Your task to perform on an android device: turn off picture-in-picture Image 0: 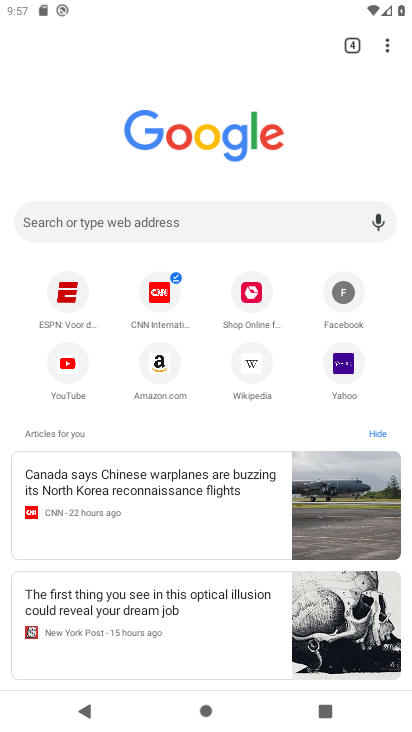
Step 0: press back button
Your task to perform on an android device: turn off picture-in-picture Image 1: 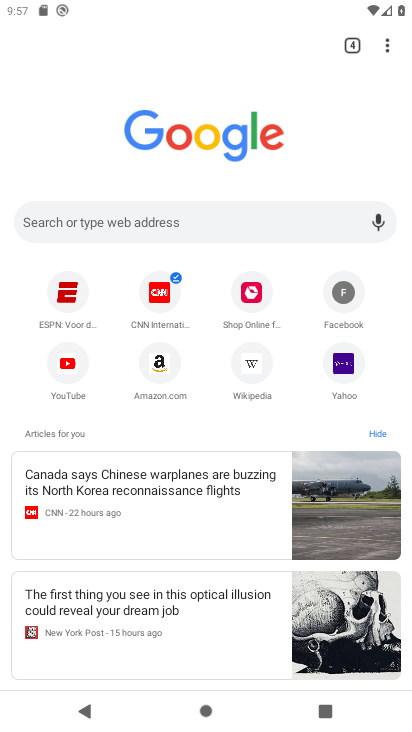
Step 1: press back button
Your task to perform on an android device: turn off picture-in-picture Image 2: 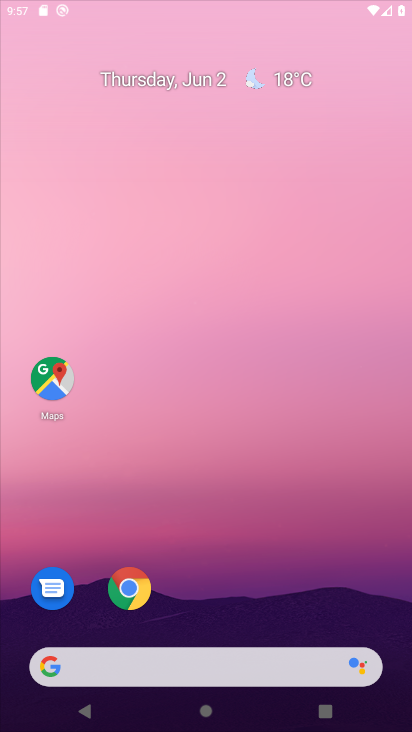
Step 2: press back button
Your task to perform on an android device: turn off picture-in-picture Image 3: 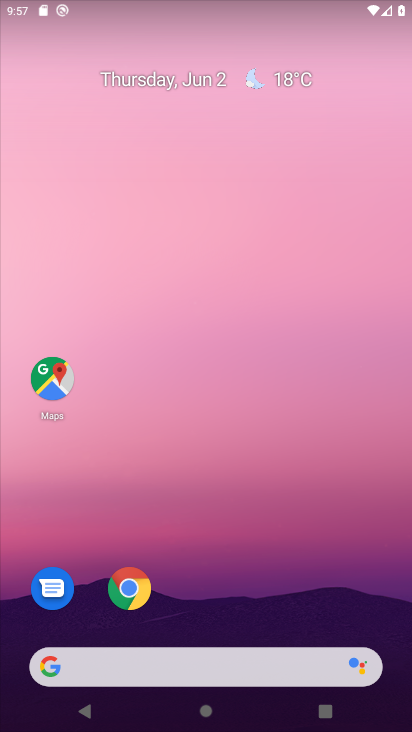
Step 3: drag from (277, 691) to (270, 17)
Your task to perform on an android device: turn off picture-in-picture Image 4: 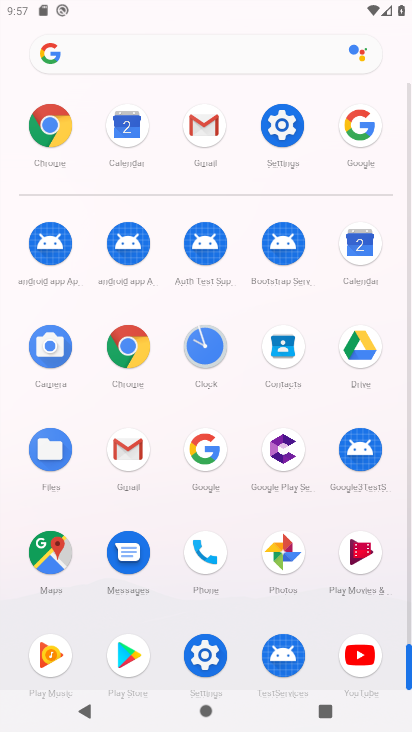
Step 4: click (48, 118)
Your task to perform on an android device: turn off picture-in-picture Image 5: 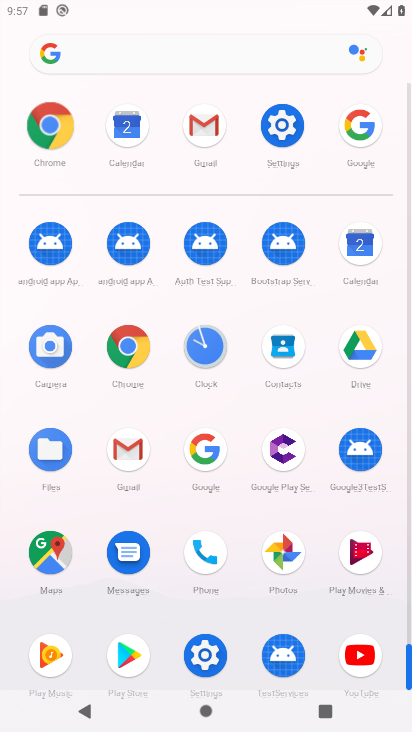
Step 5: click (46, 119)
Your task to perform on an android device: turn off picture-in-picture Image 6: 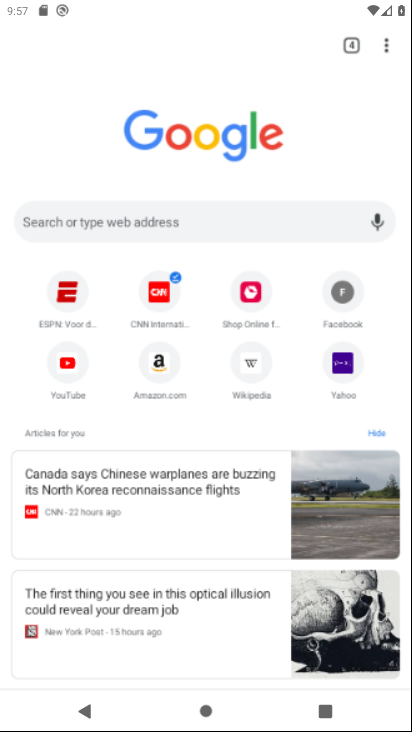
Step 6: click (51, 121)
Your task to perform on an android device: turn off picture-in-picture Image 7: 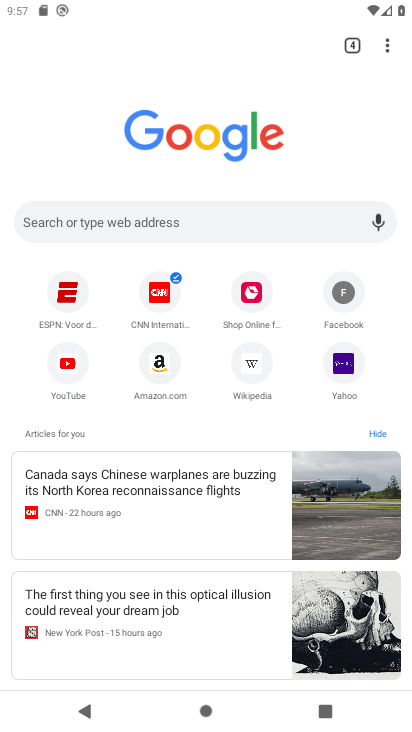
Step 7: drag from (389, 57) to (214, 375)
Your task to perform on an android device: turn off picture-in-picture Image 8: 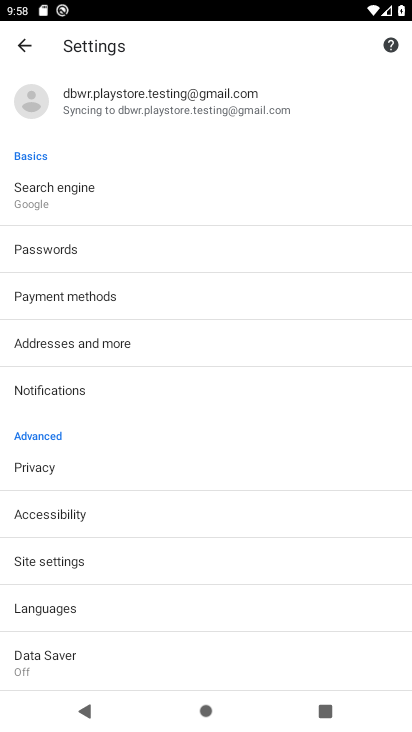
Step 8: click (28, 41)
Your task to perform on an android device: turn off picture-in-picture Image 9: 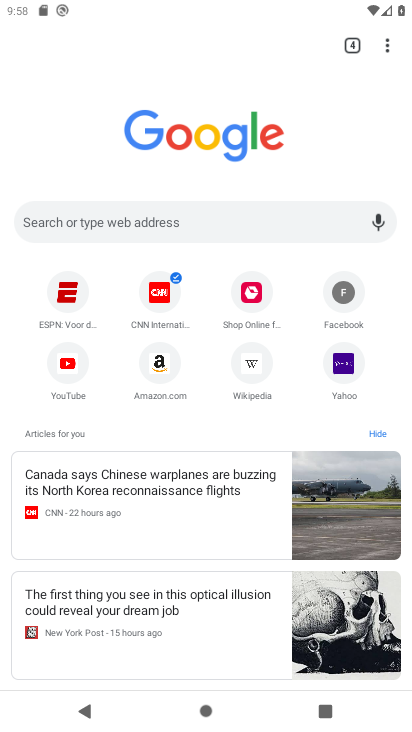
Step 9: press back button
Your task to perform on an android device: turn off picture-in-picture Image 10: 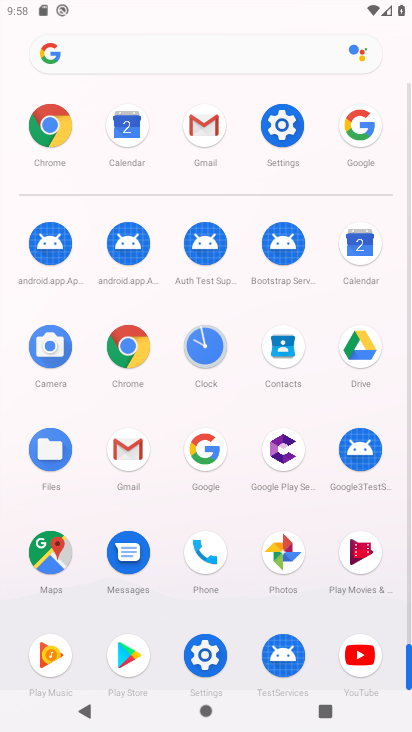
Step 10: click (52, 129)
Your task to perform on an android device: turn off picture-in-picture Image 11: 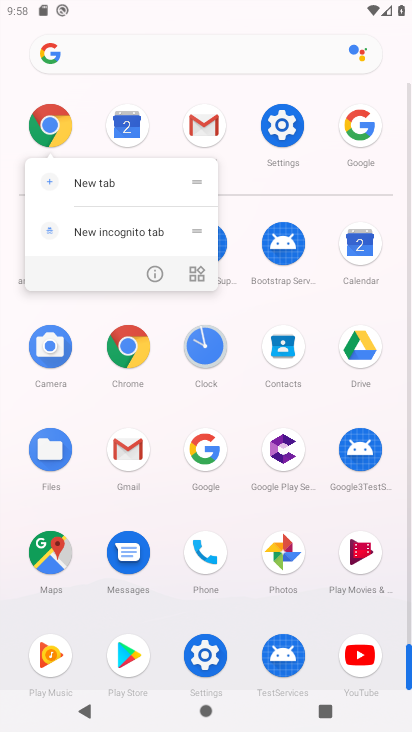
Step 11: click (159, 271)
Your task to perform on an android device: turn off picture-in-picture Image 12: 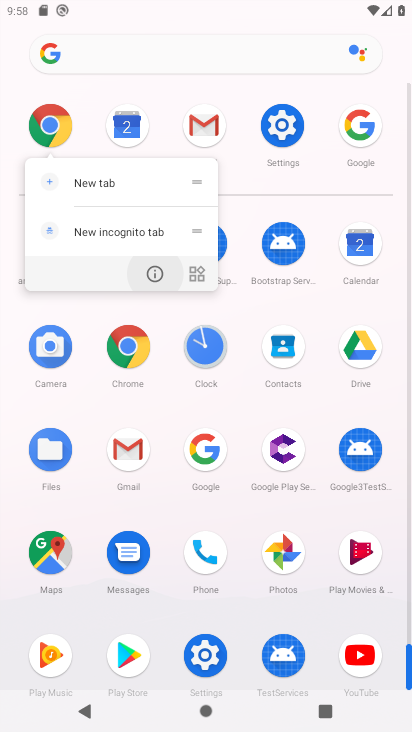
Step 12: click (159, 271)
Your task to perform on an android device: turn off picture-in-picture Image 13: 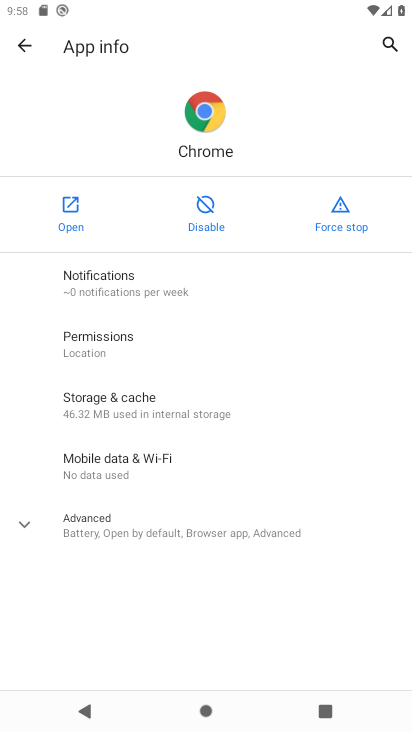
Step 13: click (100, 520)
Your task to perform on an android device: turn off picture-in-picture Image 14: 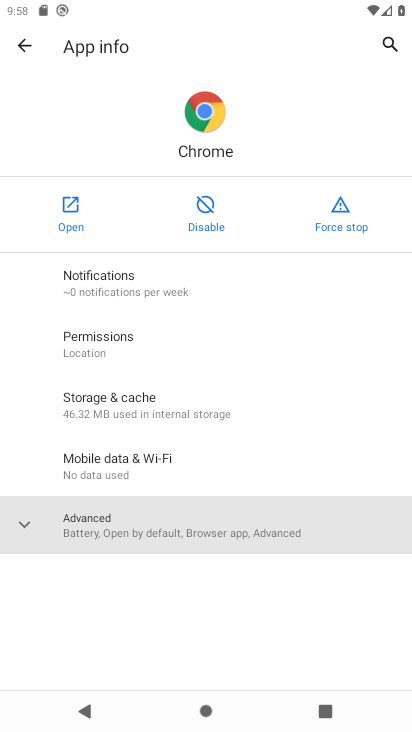
Step 14: click (100, 520)
Your task to perform on an android device: turn off picture-in-picture Image 15: 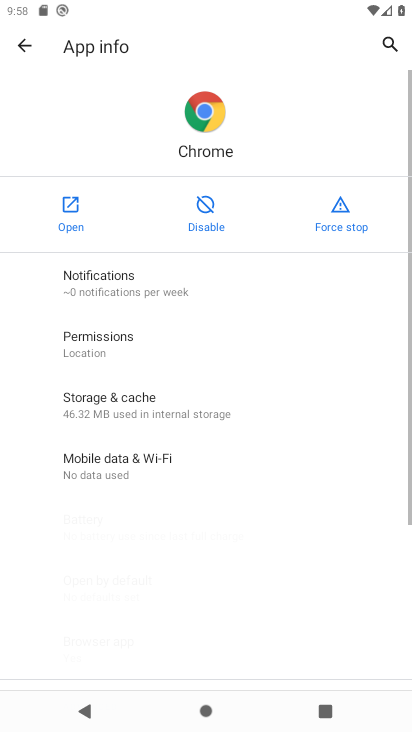
Step 15: click (100, 520)
Your task to perform on an android device: turn off picture-in-picture Image 16: 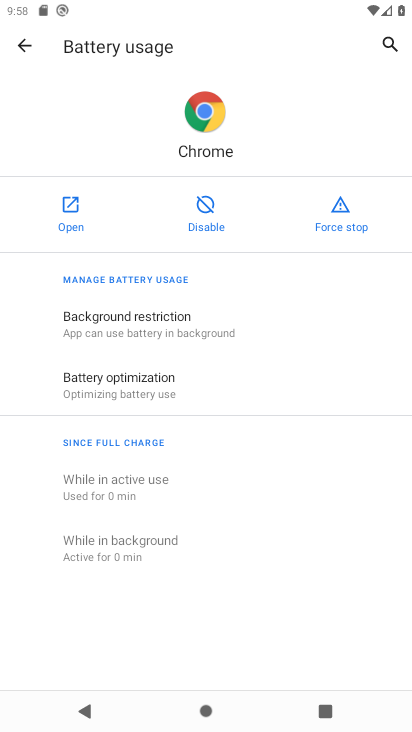
Step 16: click (20, 51)
Your task to perform on an android device: turn off picture-in-picture Image 17: 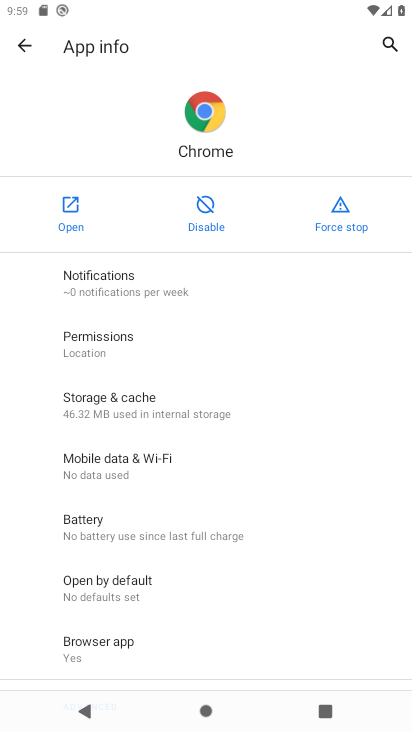
Step 17: drag from (143, 538) to (141, 220)
Your task to perform on an android device: turn off picture-in-picture Image 18: 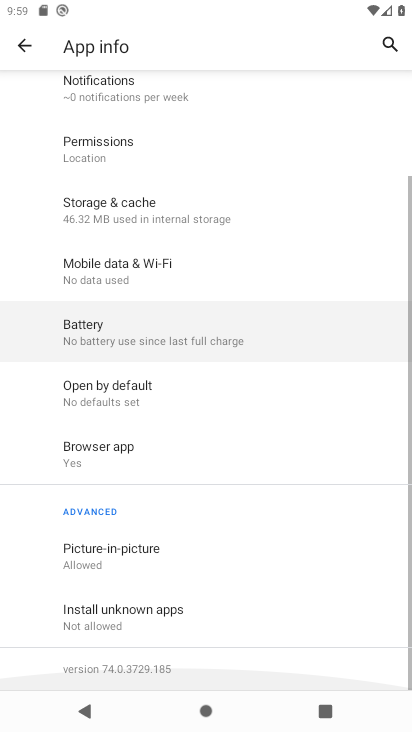
Step 18: drag from (179, 421) to (169, 225)
Your task to perform on an android device: turn off picture-in-picture Image 19: 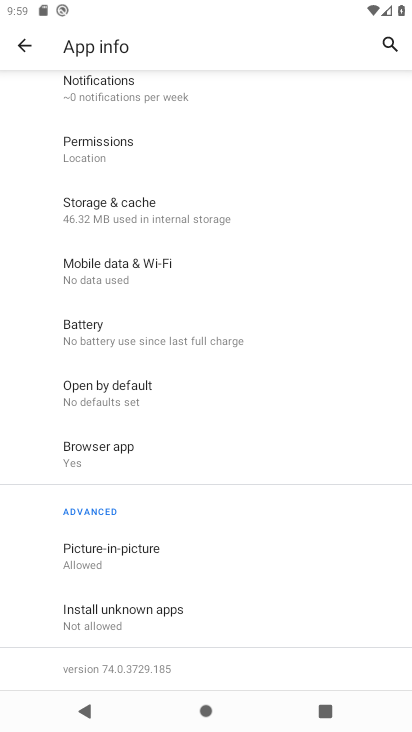
Step 19: click (112, 553)
Your task to perform on an android device: turn off picture-in-picture Image 20: 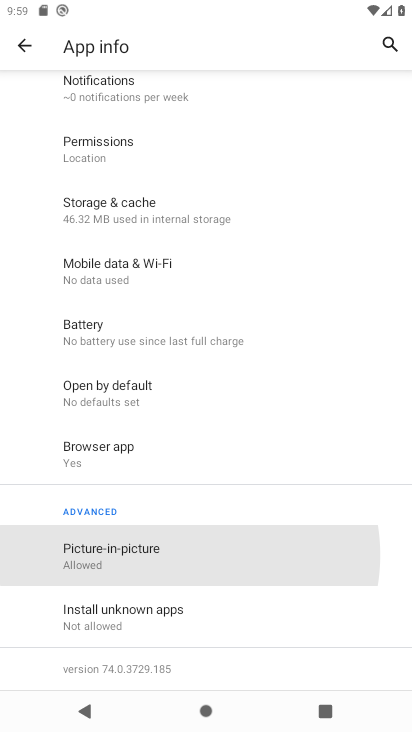
Step 20: click (112, 553)
Your task to perform on an android device: turn off picture-in-picture Image 21: 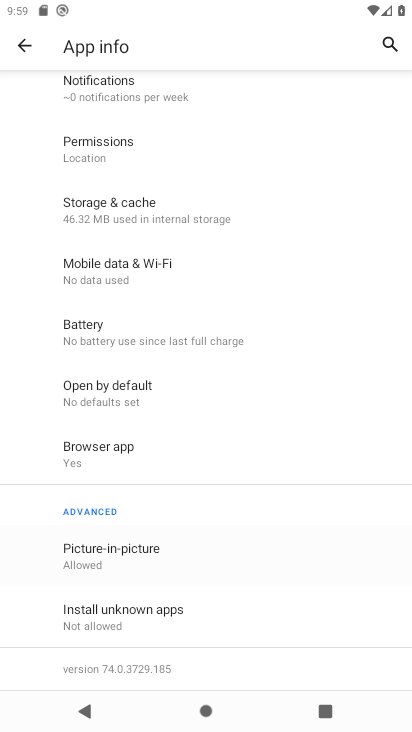
Step 21: click (112, 553)
Your task to perform on an android device: turn off picture-in-picture Image 22: 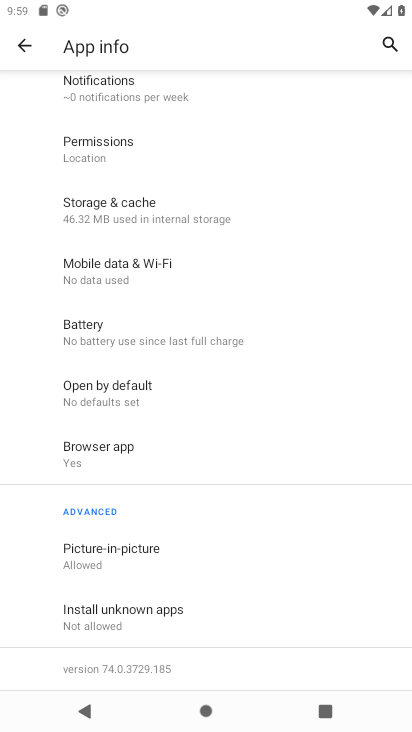
Step 22: click (112, 553)
Your task to perform on an android device: turn off picture-in-picture Image 23: 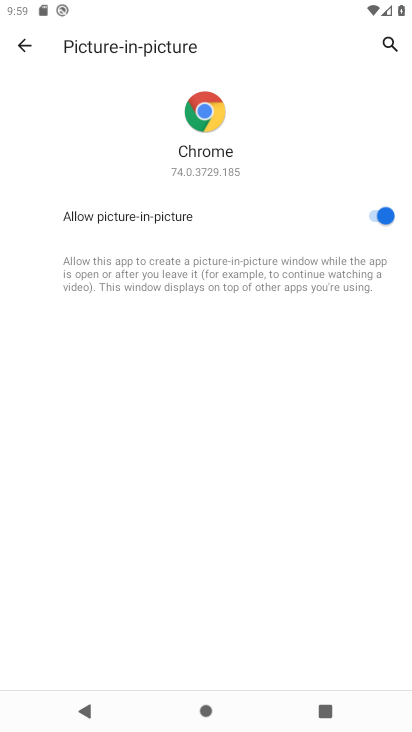
Step 23: click (386, 217)
Your task to perform on an android device: turn off picture-in-picture Image 24: 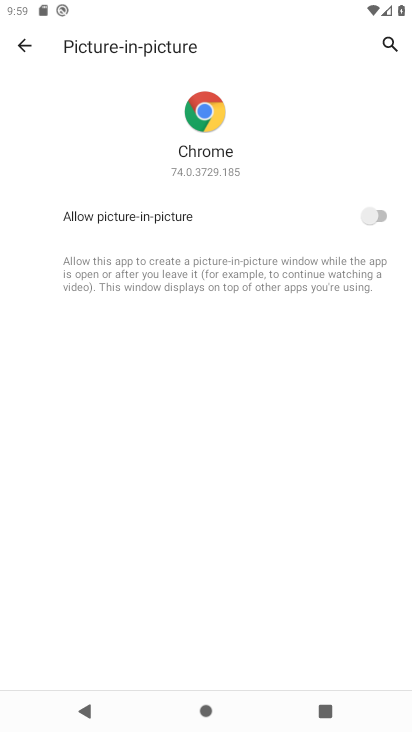
Step 24: task complete